Your task to perform on an android device: Open Google Chrome and open the bookmarks view Image 0: 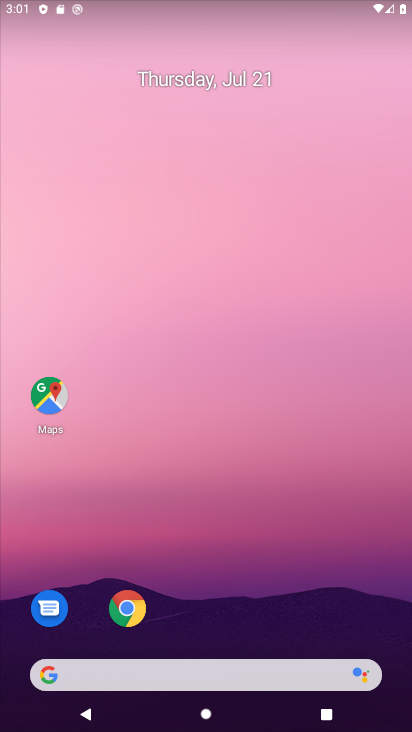
Step 0: drag from (288, 665) to (278, 38)
Your task to perform on an android device: Open Google Chrome and open the bookmarks view Image 1: 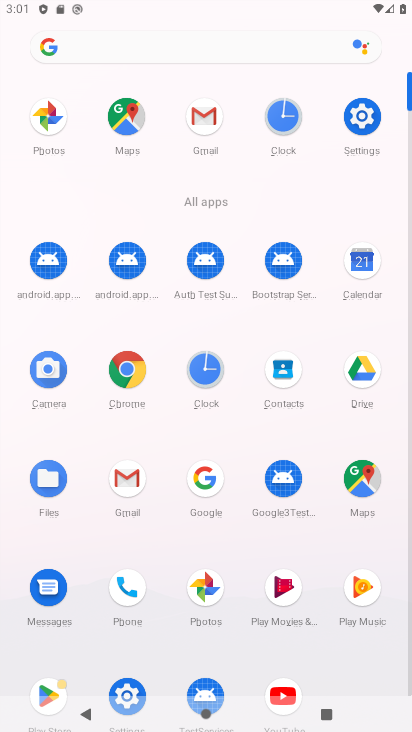
Step 1: click (136, 366)
Your task to perform on an android device: Open Google Chrome and open the bookmarks view Image 2: 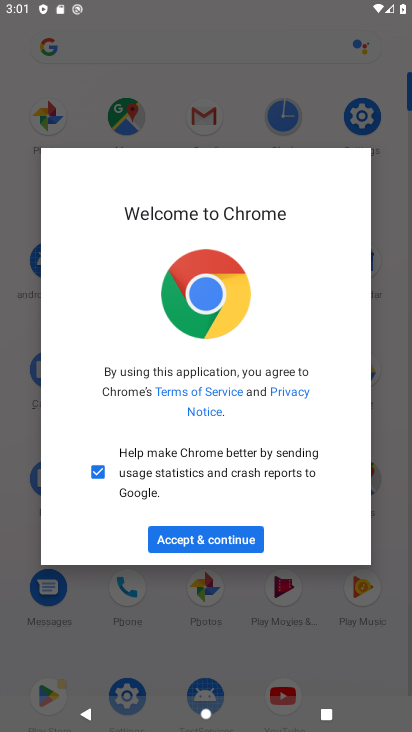
Step 2: click (240, 544)
Your task to perform on an android device: Open Google Chrome and open the bookmarks view Image 3: 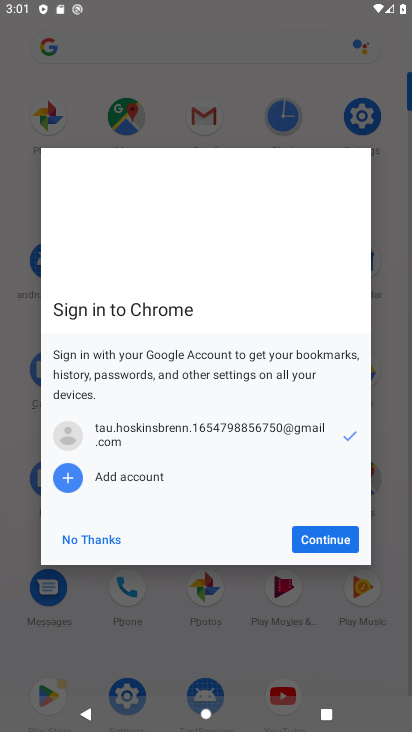
Step 3: click (83, 542)
Your task to perform on an android device: Open Google Chrome and open the bookmarks view Image 4: 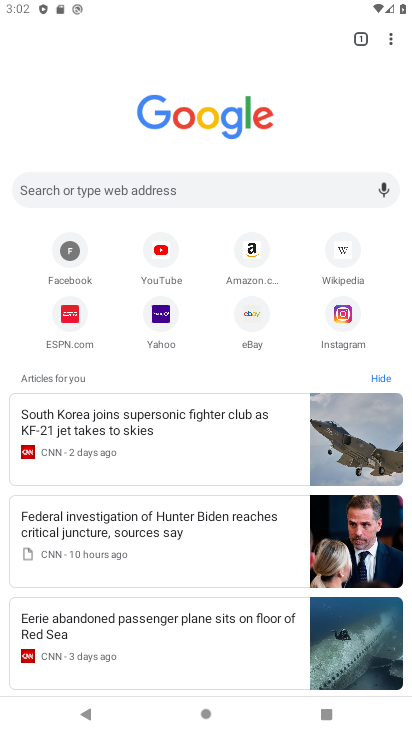
Step 4: task complete